Your task to perform on an android device: Go to sound settings Image 0: 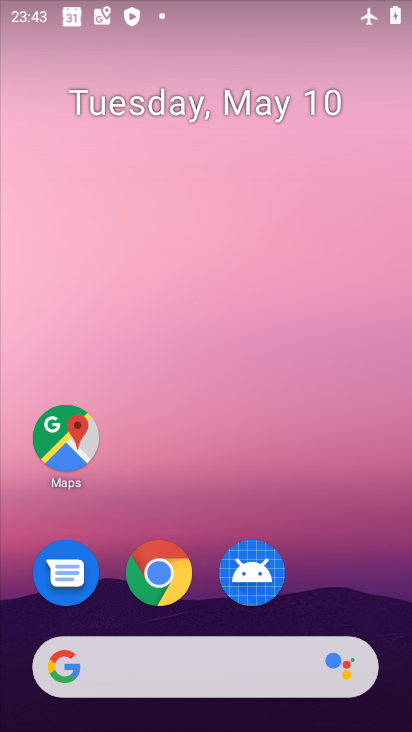
Step 0: drag from (314, 481) to (208, 37)
Your task to perform on an android device: Go to sound settings Image 1: 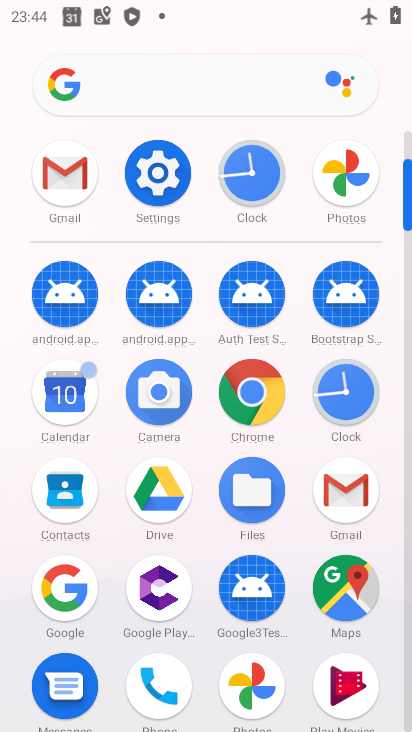
Step 1: click (161, 180)
Your task to perform on an android device: Go to sound settings Image 2: 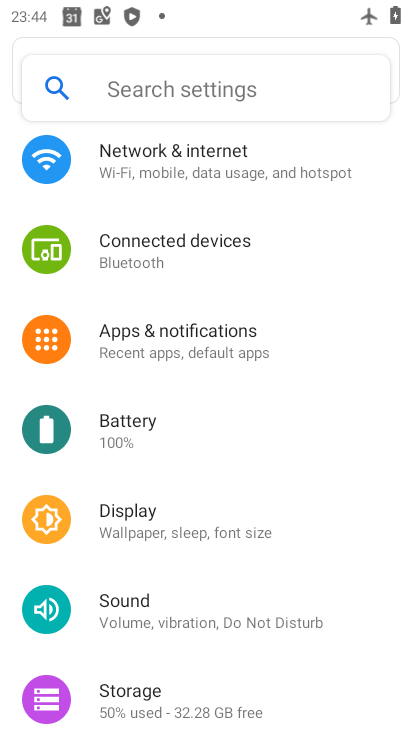
Step 2: click (130, 611)
Your task to perform on an android device: Go to sound settings Image 3: 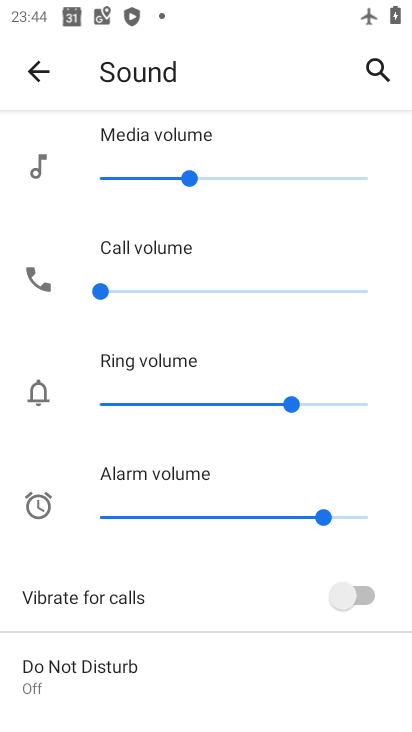
Step 3: task complete